Your task to perform on an android device: Open Google Chrome and click the shortcut for Amazon.com Image 0: 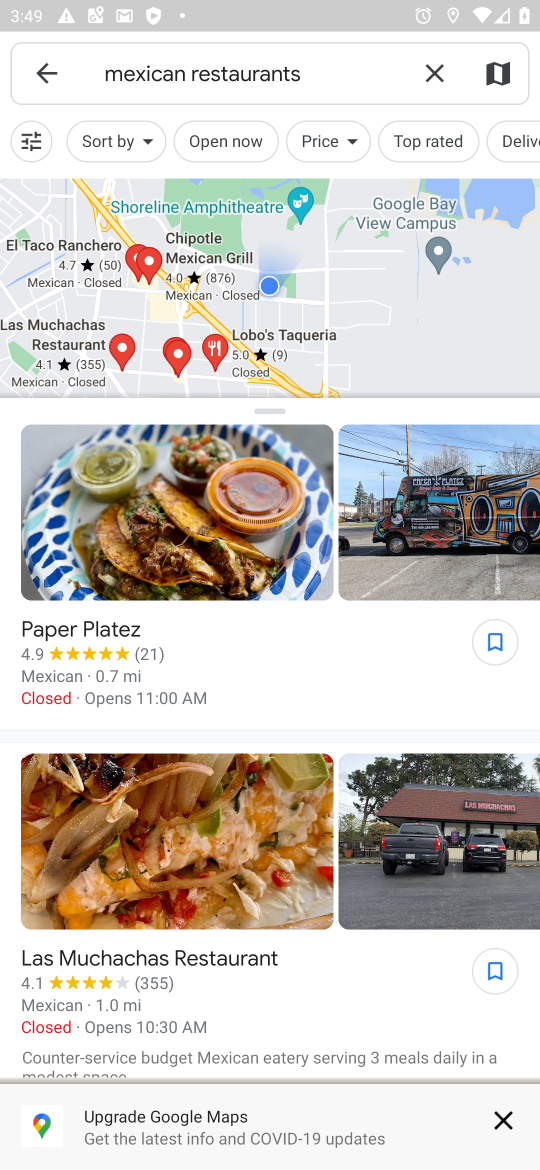
Step 0: press back button
Your task to perform on an android device: Open Google Chrome and click the shortcut for Amazon.com Image 1: 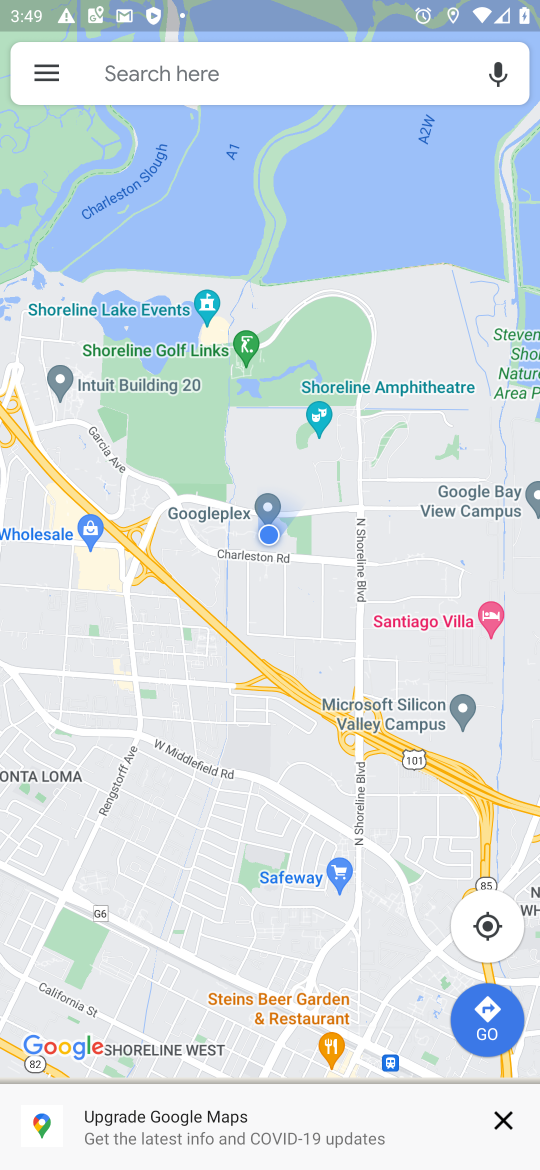
Step 1: press home button
Your task to perform on an android device: Open Google Chrome and click the shortcut for Amazon.com Image 2: 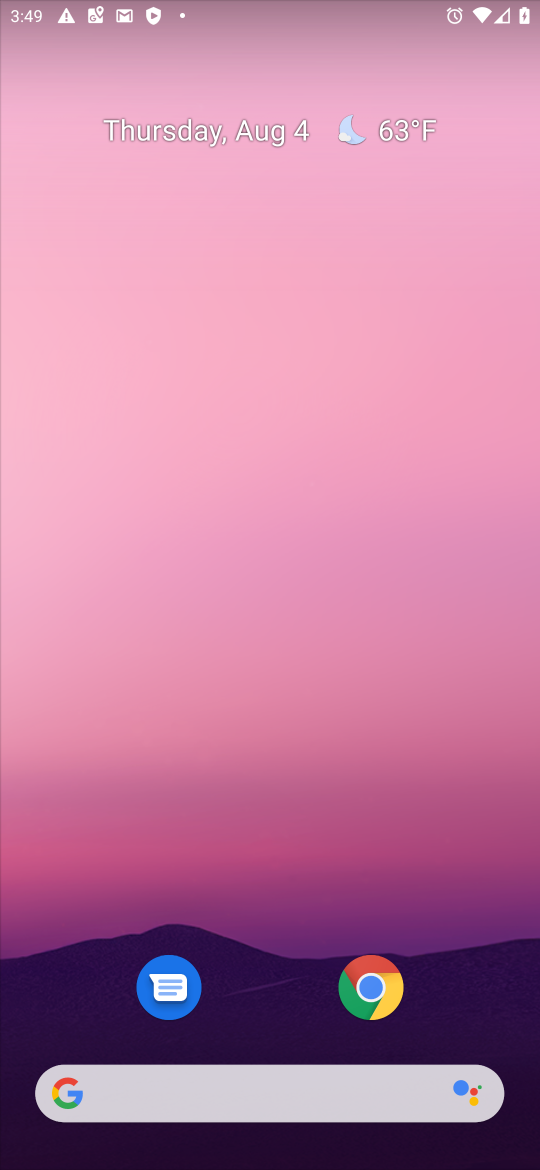
Step 2: click (370, 985)
Your task to perform on an android device: Open Google Chrome and click the shortcut for Amazon.com Image 3: 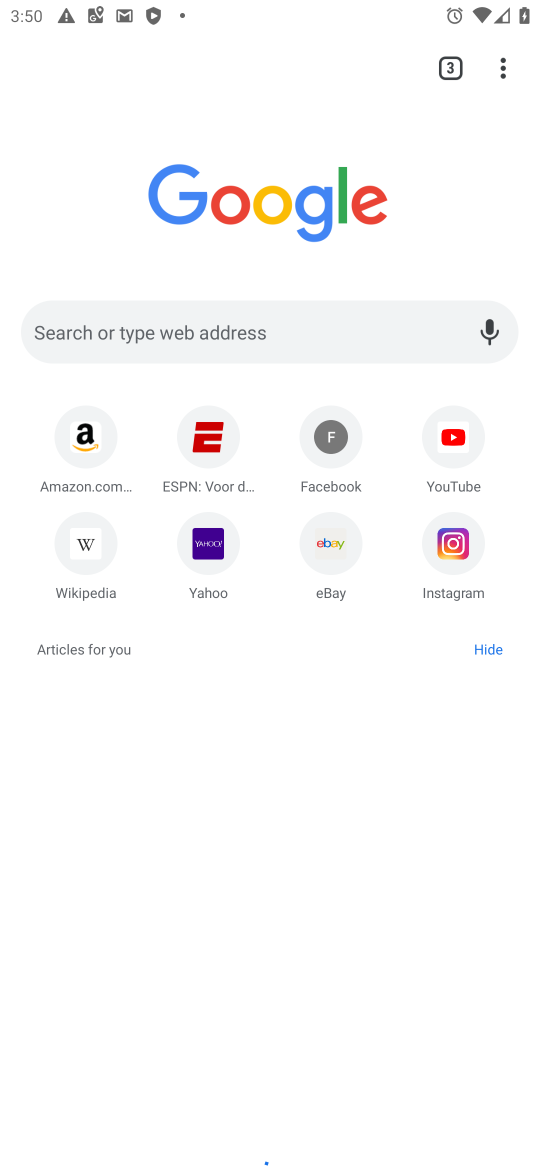
Step 3: click (97, 467)
Your task to perform on an android device: Open Google Chrome and click the shortcut for Amazon.com Image 4: 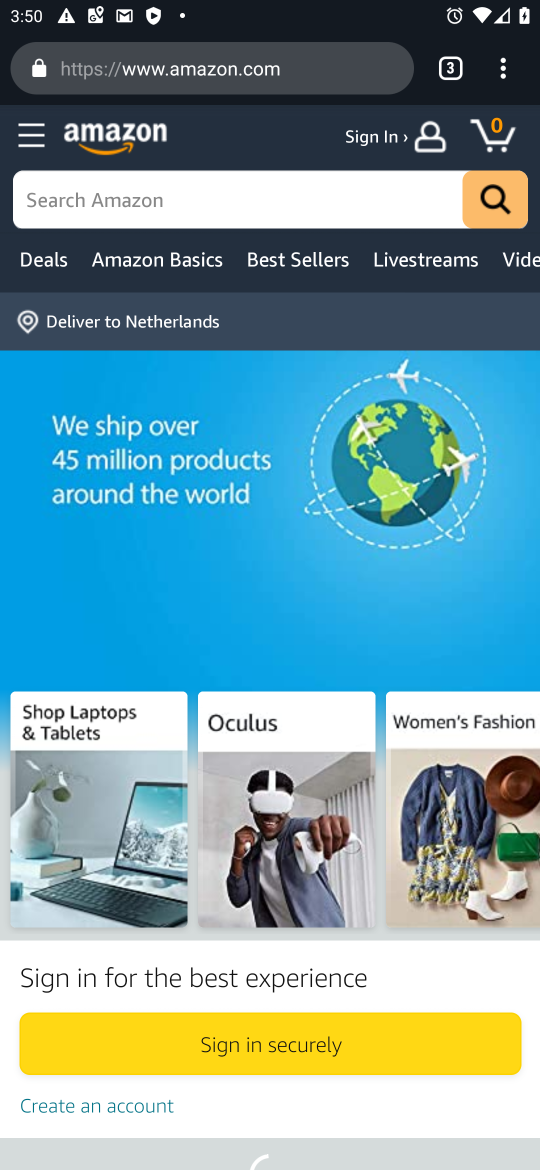
Step 4: task complete